Your task to perform on an android device: What's on my calendar tomorrow? Image 0: 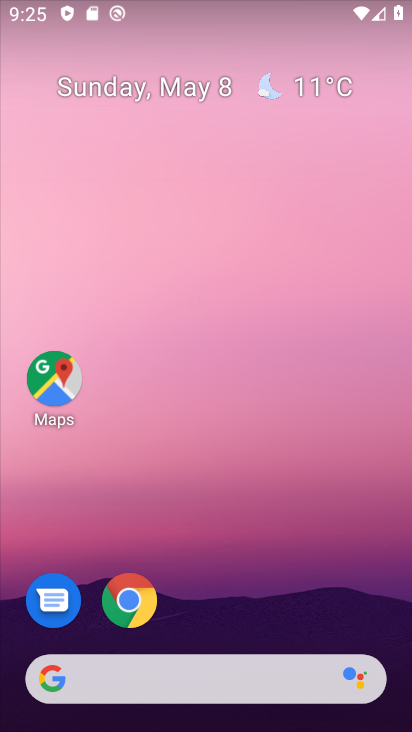
Step 0: drag from (224, 604) to (189, 20)
Your task to perform on an android device: What's on my calendar tomorrow? Image 1: 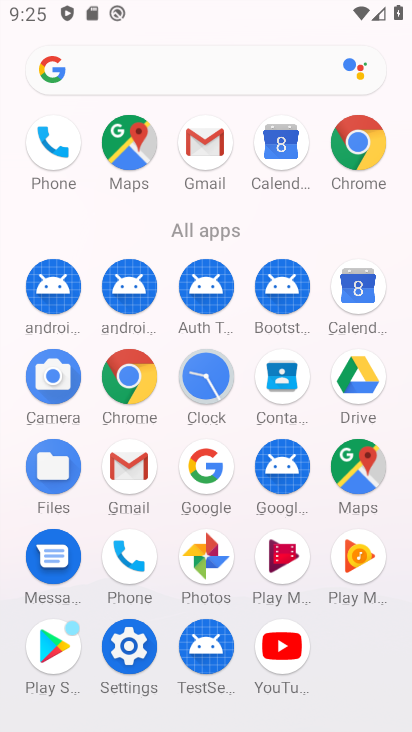
Step 1: drag from (8, 550) to (8, 201)
Your task to perform on an android device: What's on my calendar tomorrow? Image 2: 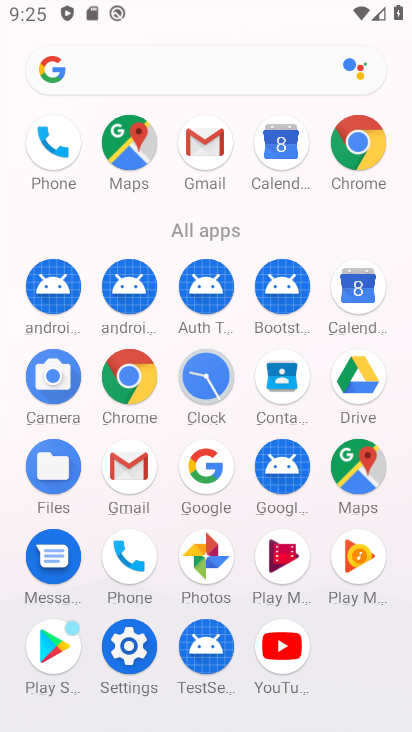
Step 2: click (364, 284)
Your task to perform on an android device: What's on my calendar tomorrow? Image 3: 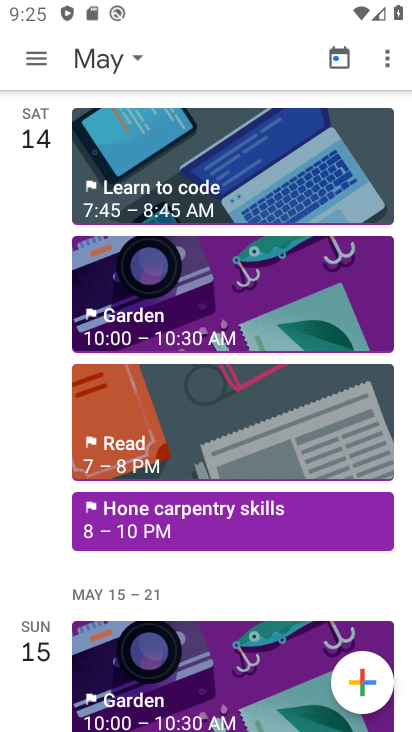
Step 3: click (104, 56)
Your task to perform on an android device: What's on my calendar tomorrow? Image 4: 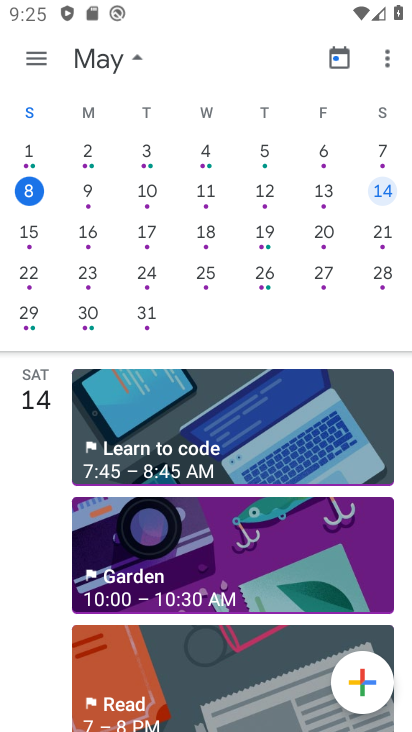
Step 4: click (333, 63)
Your task to perform on an android device: What's on my calendar tomorrow? Image 5: 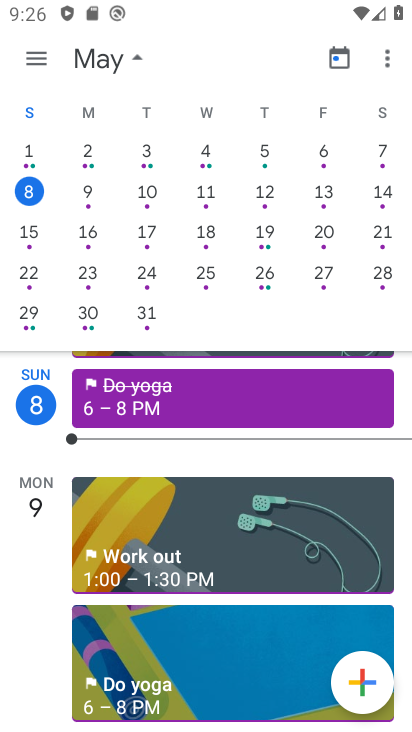
Step 5: click (85, 194)
Your task to perform on an android device: What's on my calendar tomorrow? Image 6: 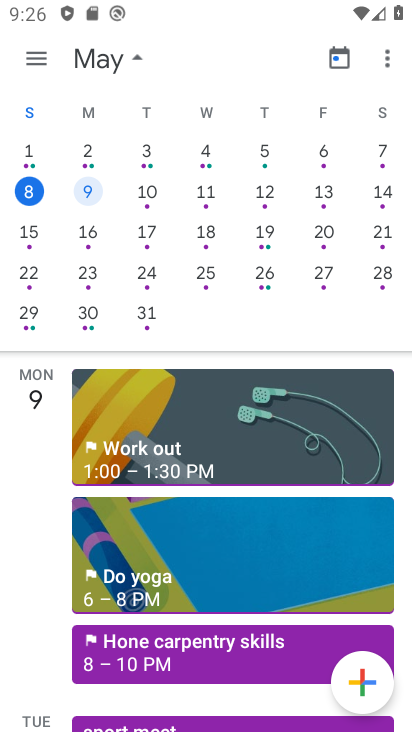
Step 6: click (29, 51)
Your task to perform on an android device: What's on my calendar tomorrow? Image 7: 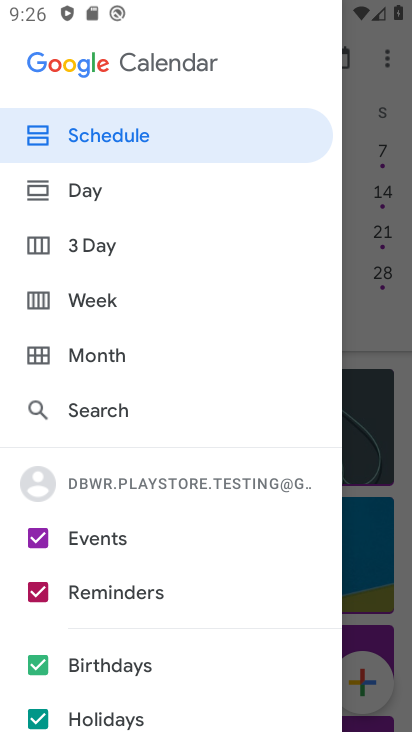
Step 7: click (91, 194)
Your task to perform on an android device: What's on my calendar tomorrow? Image 8: 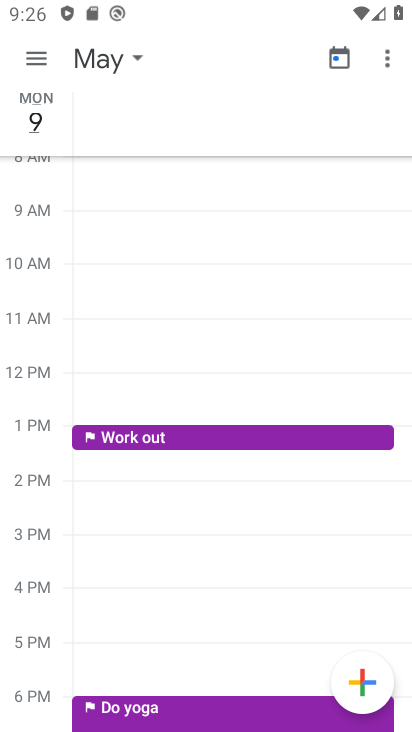
Step 8: task complete